Your task to perform on an android device: open app "Lyft - Rideshare, Bikes, Scooters & Transit" (install if not already installed), go to login, and select forgot password Image 0: 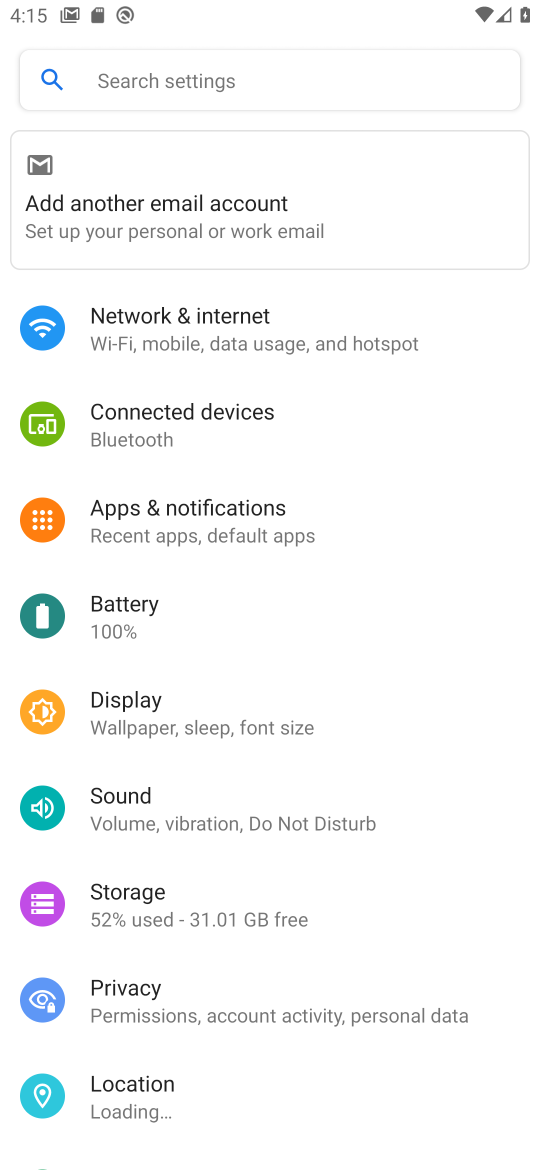
Step 0: click (228, 167)
Your task to perform on an android device: open app "Lyft - Rideshare, Bikes, Scooters & Transit" (install if not already installed), go to login, and select forgot password Image 1: 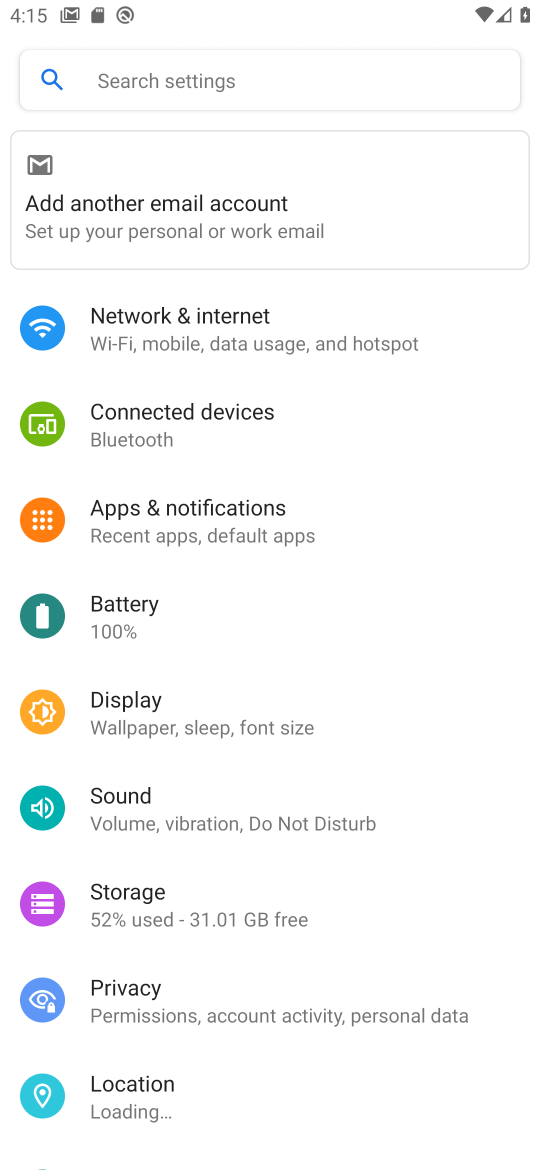
Step 1: press home button
Your task to perform on an android device: open app "Lyft - Rideshare, Bikes, Scooters & Transit" (install if not already installed), go to login, and select forgot password Image 2: 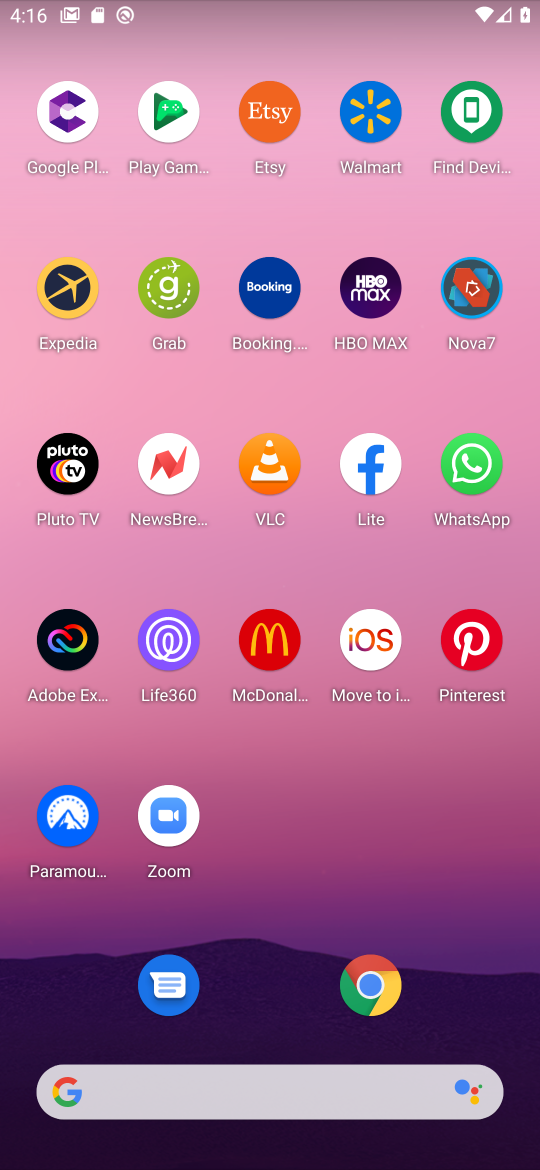
Step 2: drag from (241, 692) to (232, 153)
Your task to perform on an android device: open app "Lyft - Rideshare, Bikes, Scooters & Transit" (install if not already installed), go to login, and select forgot password Image 3: 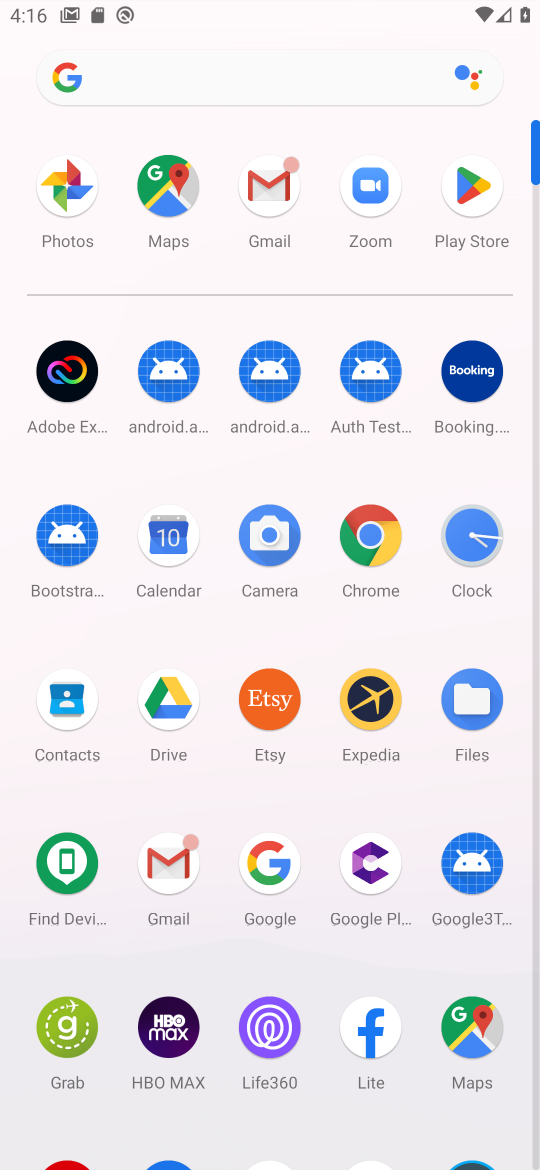
Step 3: click (472, 177)
Your task to perform on an android device: open app "Lyft - Rideshare, Bikes, Scooters & Transit" (install if not already installed), go to login, and select forgot password Image 4: 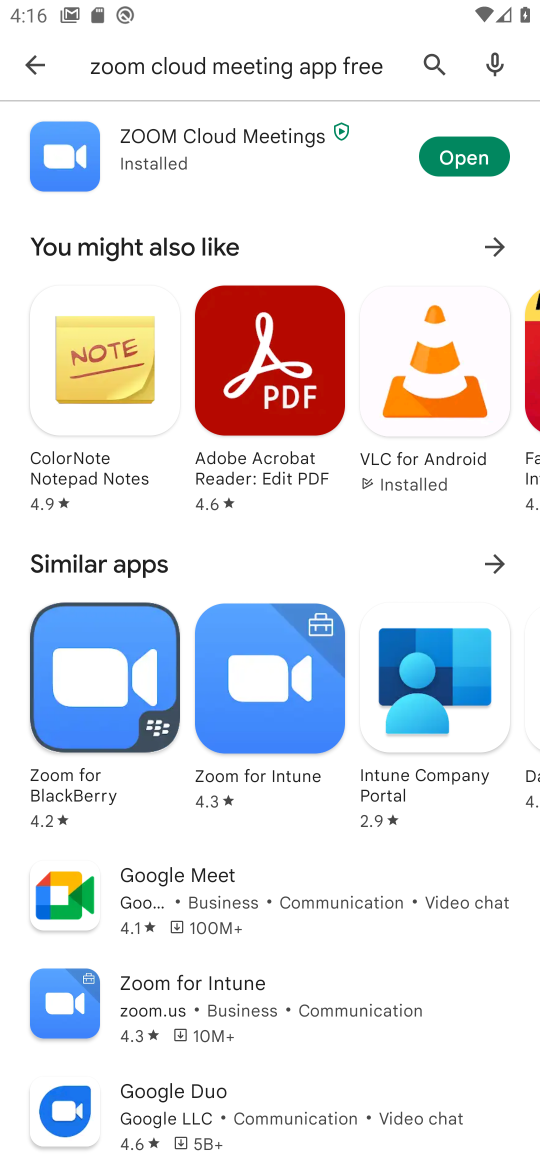
Step 4: click (31, 65)
Your task to perform on an android device: open app "Lyft - Rideshare, Bikes, Scooters & Transit" (install if not already installed), go to login, and select forgot password Image 5: 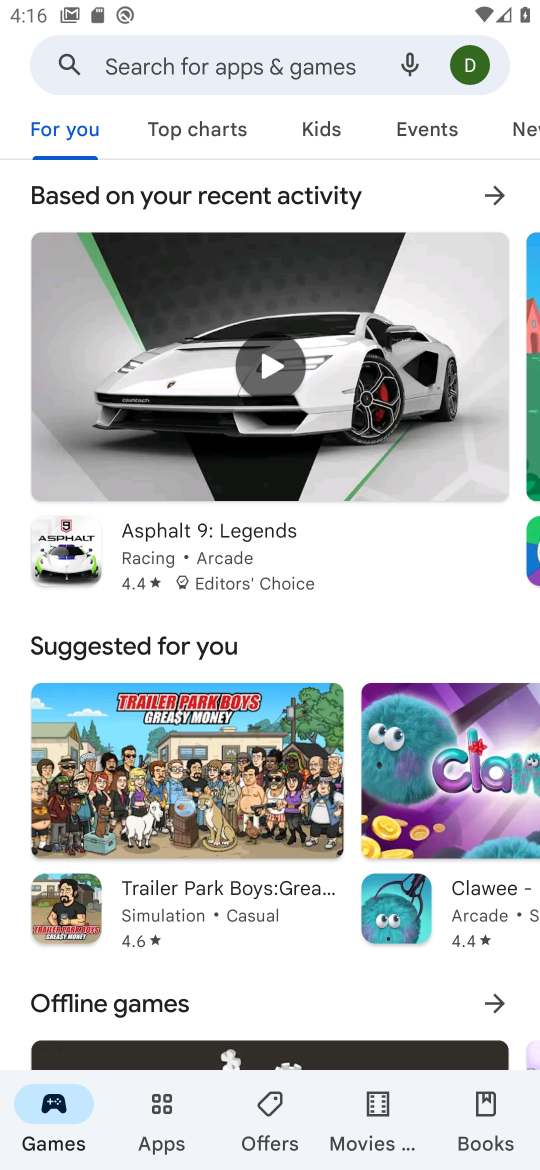
Step 5: click (192, 68)
Your task to perform on an android device: open app "Lyft - Rideshare, Bikes, Scooters & Transit" (install if not already installed), go to login, and select forgot password Image 6: 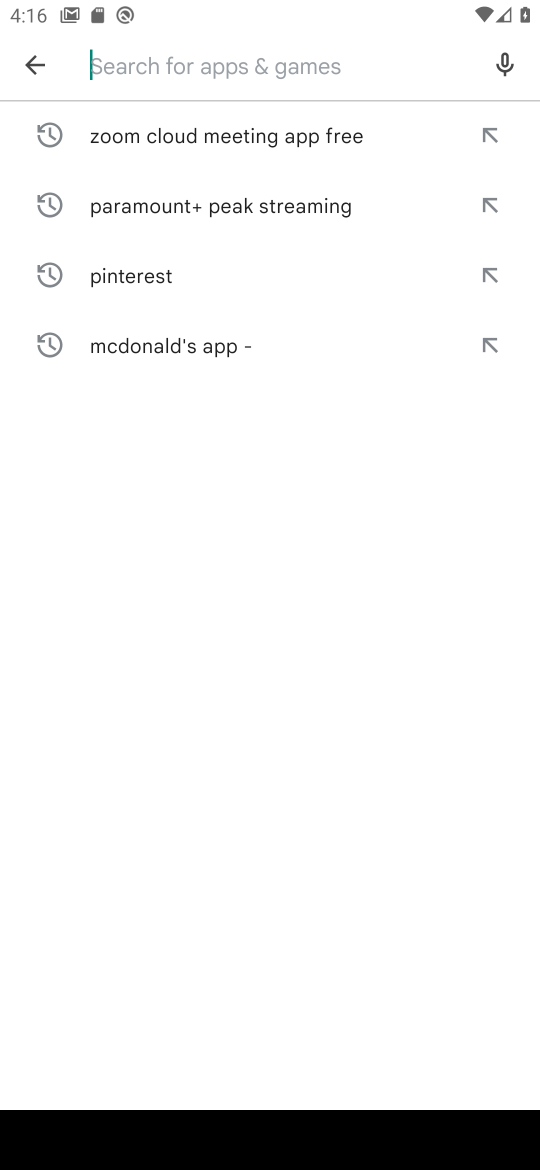
Step 6: type "Lyft - Rideshare, Bikes, Scooters & Transit"
Your task to perform on an android device: open app "Lyft - Rideshare, Bikes, Scooters & Transit" (install if not already installed), go to login, and select forgot password Image 7: 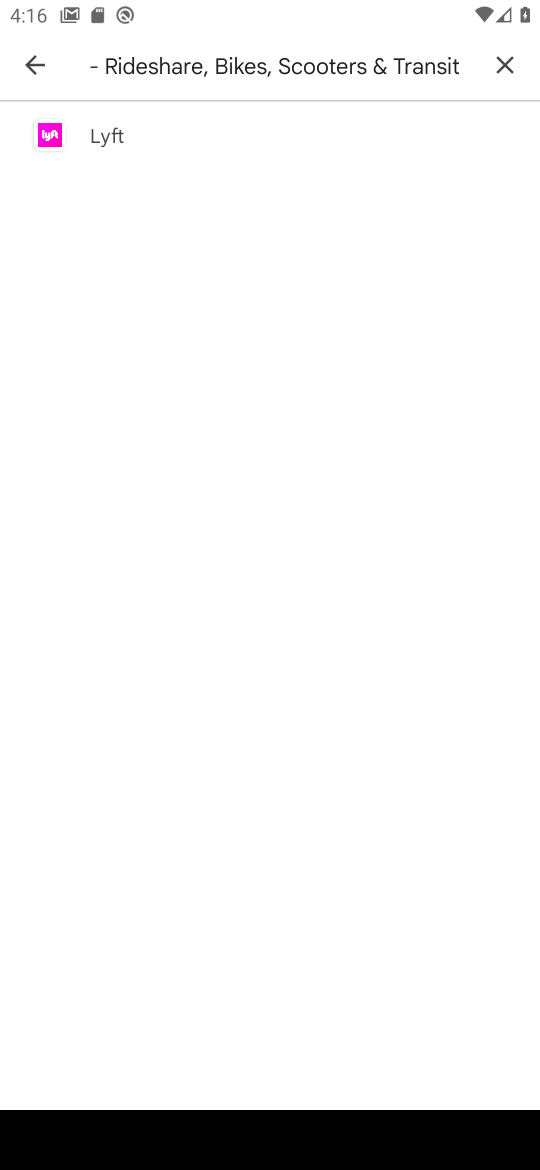
Step 7: click (96, 135)
Your task to perform on an android device: open app "Lyft - Rideshare, Bikes, Scooters & Transit" (install if not already installed), go to login, and select forgot password Image 8: 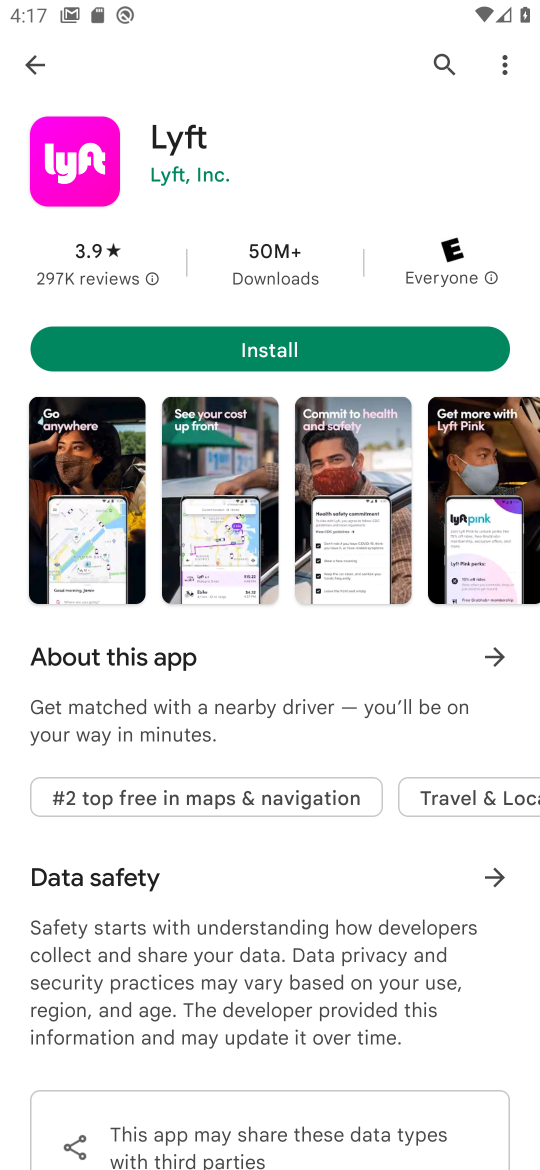
Step 8: click (266, 347)
Your task to perform on an android device: open app "Lyft - Rideshare, Bikes, Scooters & Transit" (install if not already installed), go to login, and select forgot password Image 9: 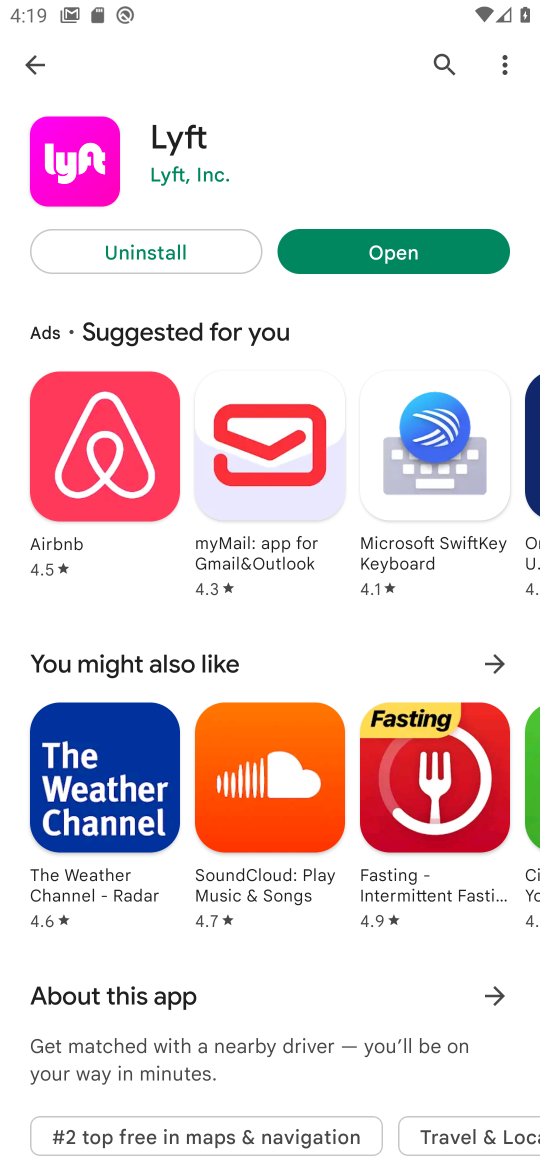
Step 9: click (403, 250)
Your task to perform on an android device: open app "Lyft - Rideshare, Bikes, Scooters & Transit" (install if not already installed), go to login, and select forgot password Image 10: 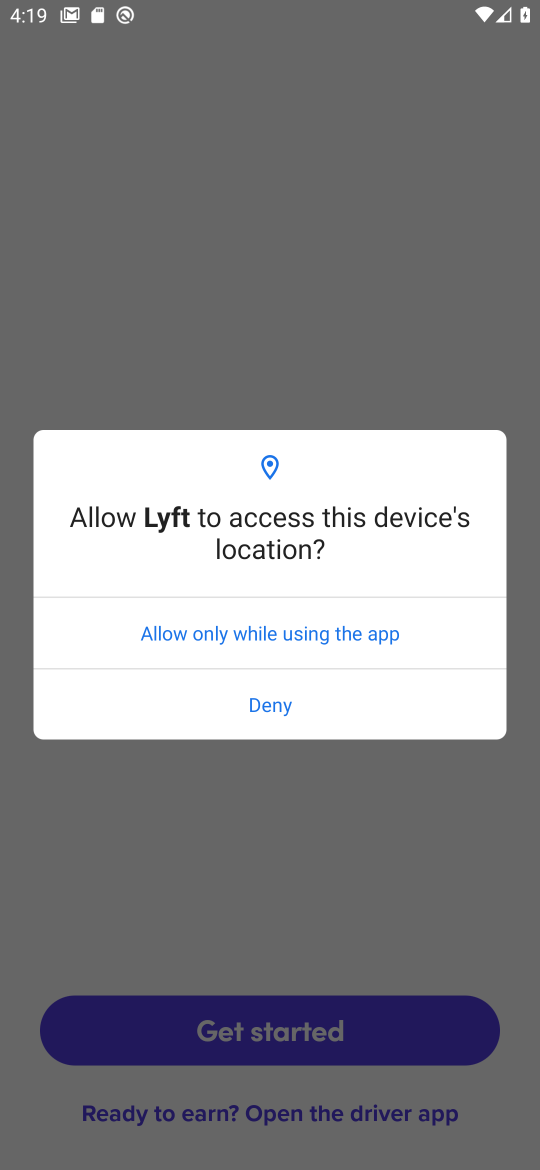
Step 10: task complete